Your task to perform on an android device: Search for Mexican restaurants on Maps Image 0: 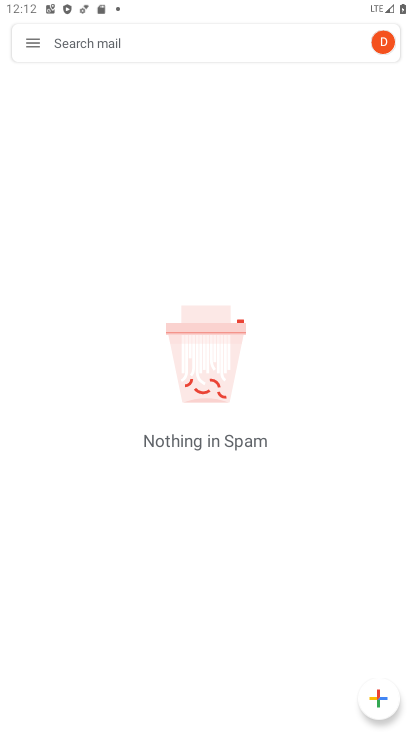
Step 0: press home button
Your task to perform on an android device: Search for Mexican restaurants on Maps Image 1: 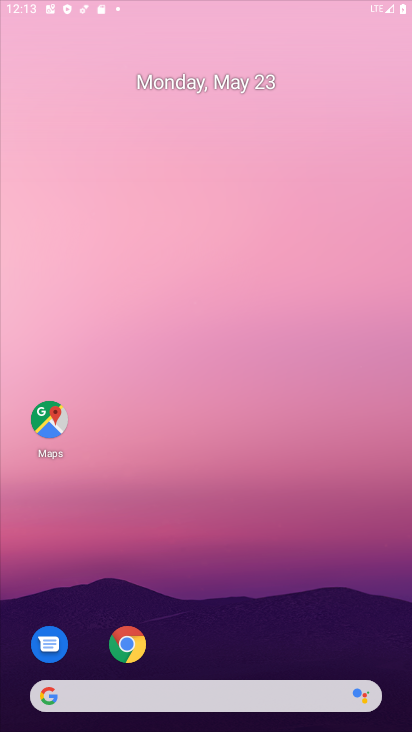
Step 1: drag from (338, 622) to (241, 59)
Your task to perform on an android device: Search for Mexican restaurants on Maps Image 2: 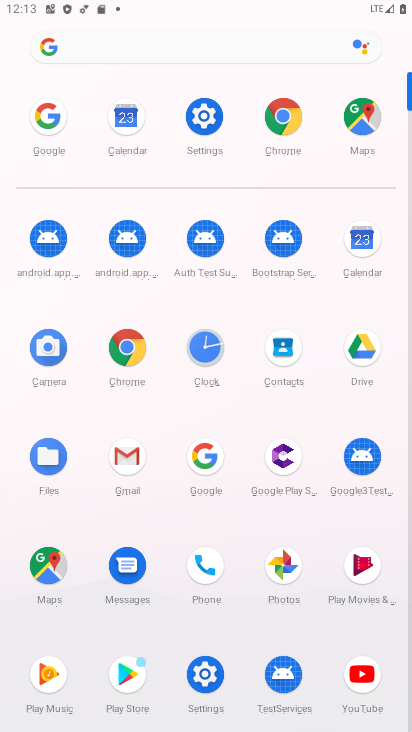
Step 2: click (367, 107)
Your task to perform on an android device: Search for Mexican restaurants on Maps Image 3: 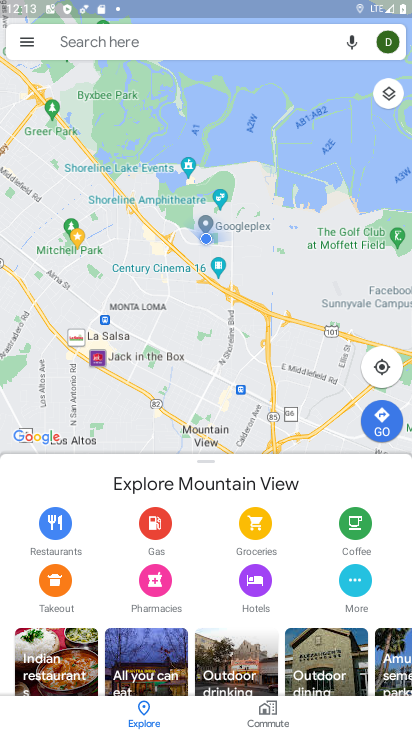
Step 3: click (155, 54)
Your task to perform on an android device: Search for Mexican restaurants on Maps Image 4: 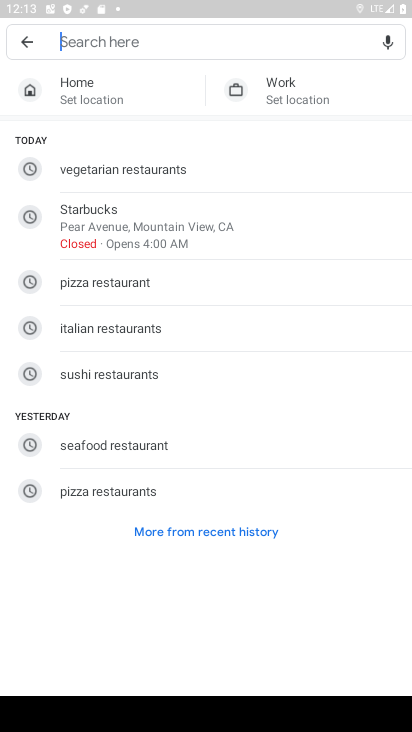
Step 4: type "mexican restaurnts"
Your task to perform on an android device: Search for Mexican restaurants on Maps Image 5: 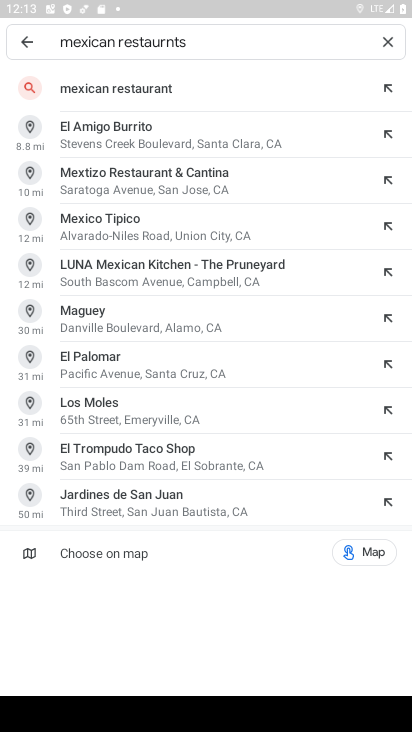
Step 5: click (174, 96)
Your task to perform on an android device: Search for Mexican restaurants on Maps Image 6: 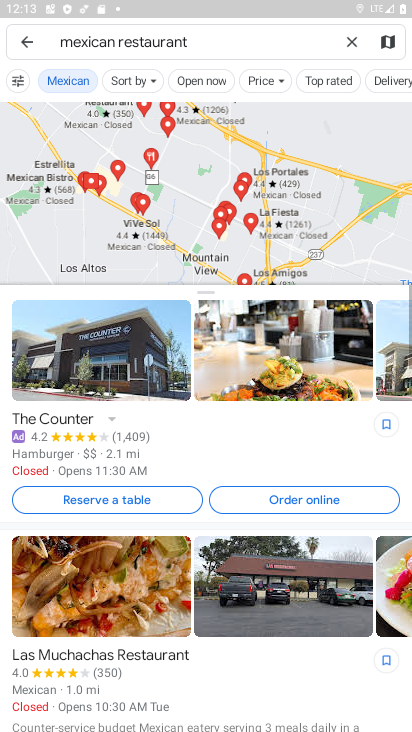
Step 6: task complete